Your task to perform on an android device: turn off priority inbox in the gmail app Image 0: 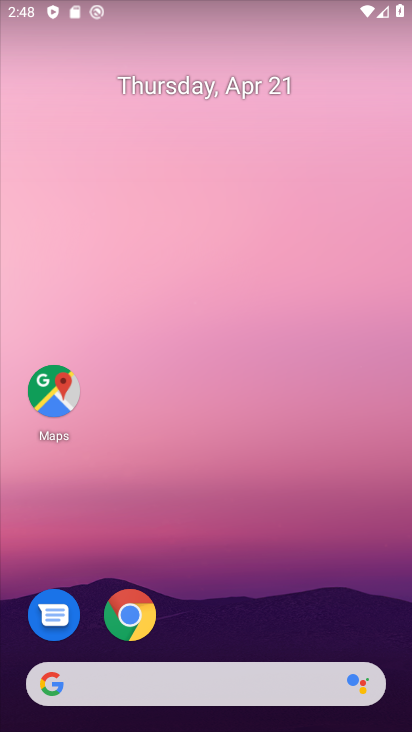
Step 0: drag from (368, 410) to (368, 141)
Your task to perform on an android device: turn off priority inbox in the gmail app Image 1: 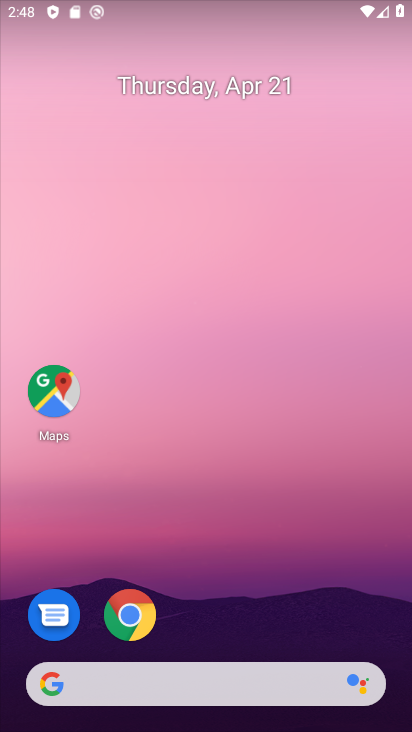
Step 1: drag from (362, 606) to (355, 164)
Your task to perform on an android device: turn off priority inbox in the gmail app Image 2: 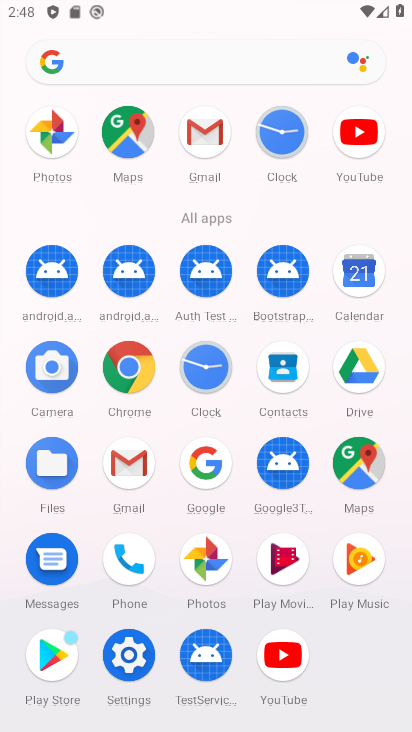
Step 2: click (141, 471)
Your task to perform on an android device: turn off priority inbox in the gmail app Image 3: 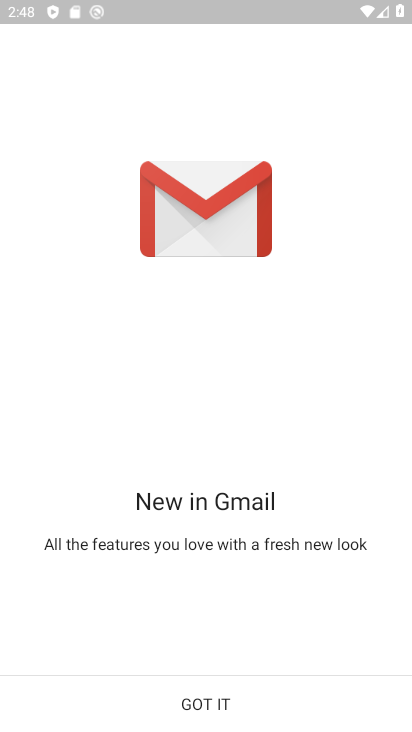
Step 3: click (212, 710)
Your task to perform on an android device: turn off priority inbox in the gmail app Image 4: 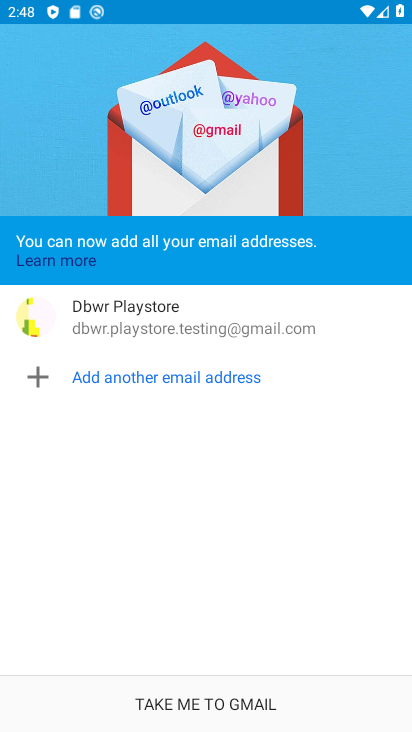
Step 4: click (208, 705)
Your task to perform on an android device: turn off priority inbox in the gmail app Image 5: 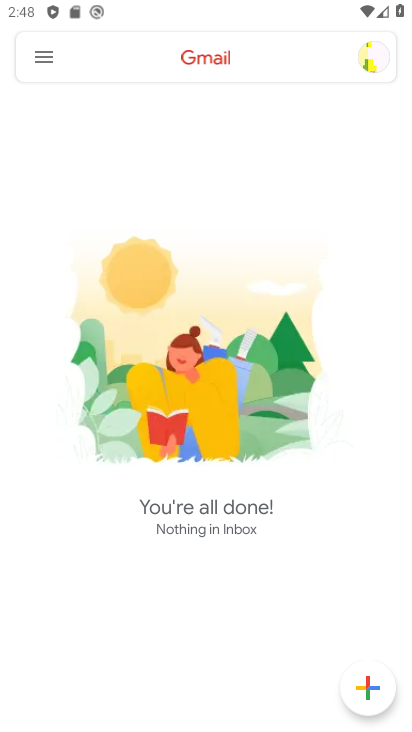
Step 5: click (43, 66)
Your task to perform on an android device: turn off priority inbox in the gmail app Image 6: 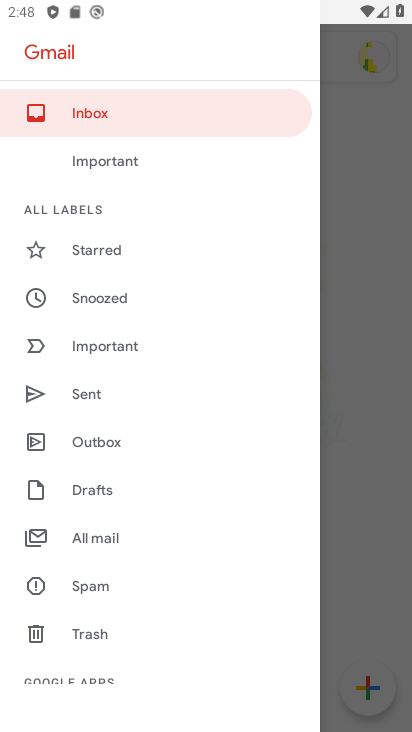
Step 6: drag from (133, 667) to (165, 433)
Your task to perform on an android device: turn off priority inbox in the gmail app Image 7: 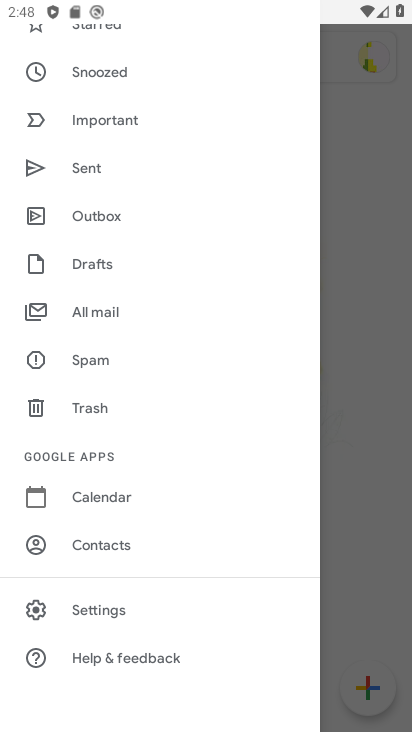
Step 7: click (104, 606)
Your task to perform on an android device: turn off priority inbox in the gmail app Image 8: 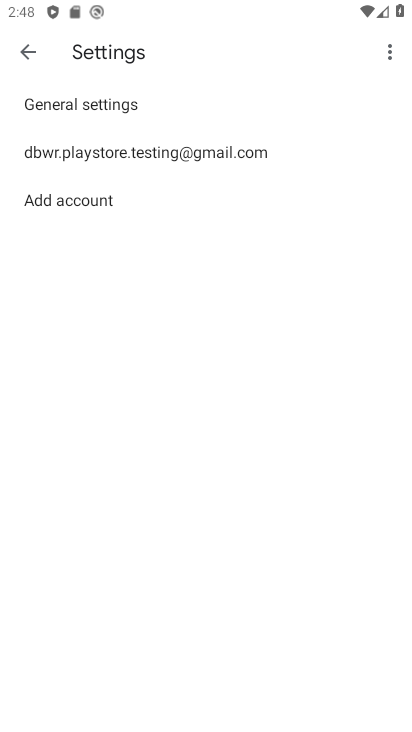
Step 8: click (150, 150)
Your task to perform on an android device: turn off priority inbox in the gmail app Image 9: 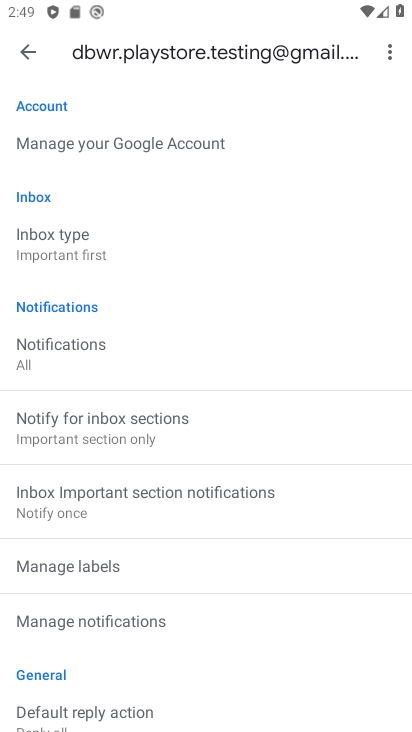
Step 9: click (63, 246)
Your task to perform on an android device: turn off priority inbox in the gmail app Image 10: 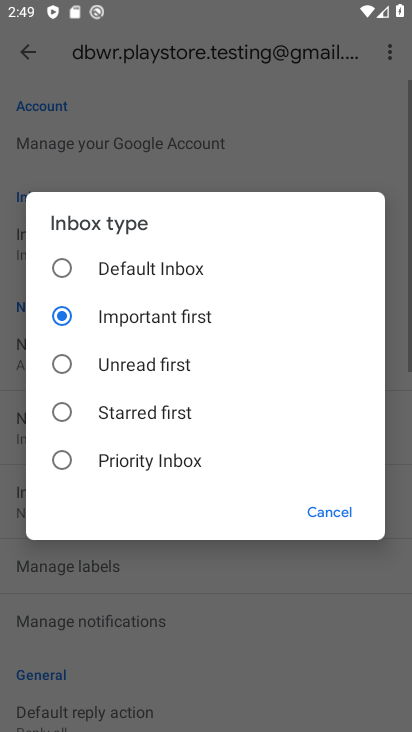
Step 10: click (67, 258)
Your task to perform on an android device: turn off priority inbox in the gmail app Image 11: 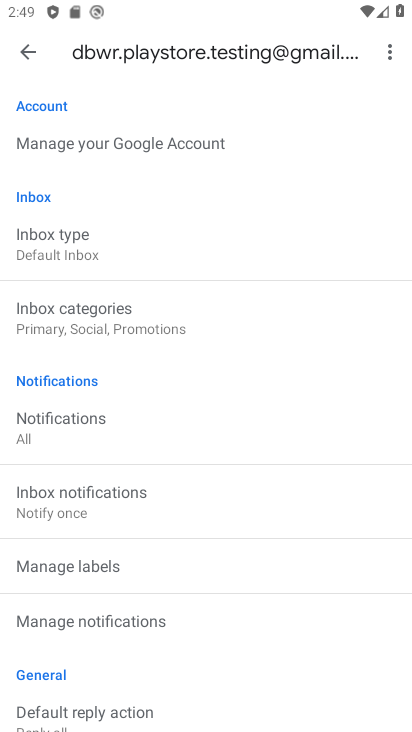
Step 11: task complete